Your task to perform on an android device: allow cookies in the chrome app Image 0: 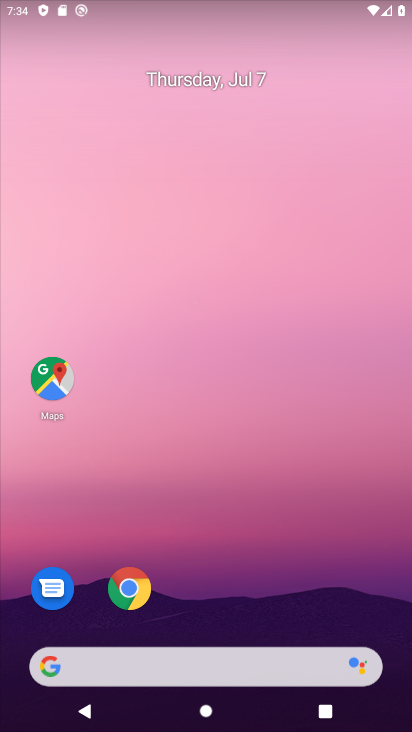
Step 0: click (135, 587)
Your task to perform on an android device: allow cookies in the chrome app Image 1: 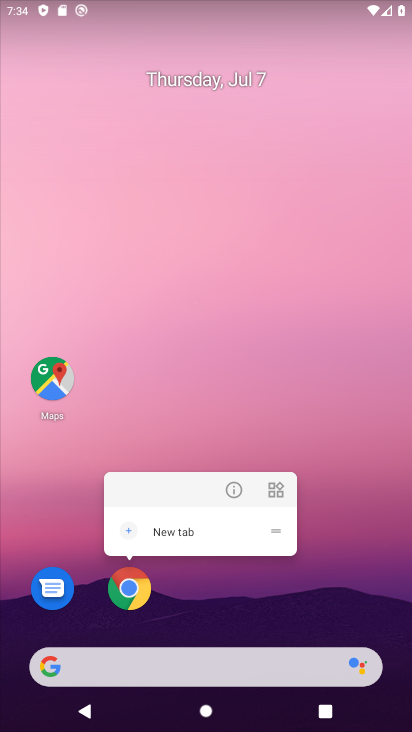
Step 1: click (117, 588)
Your task to perform on an android device: allow cookies in the chrome app Image 2: 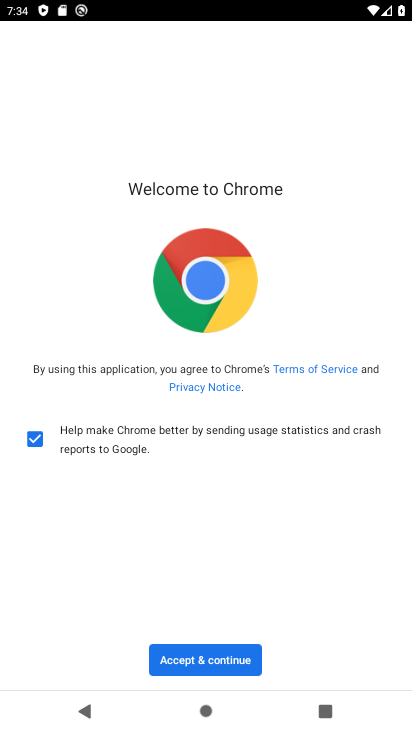
Step 2: click (183, 663)
Your task to perform on an android device: allow cookies in the chrome app Image 3: 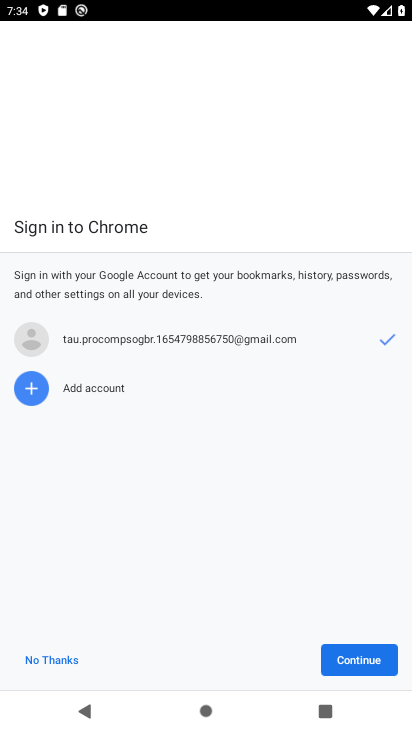
Step 3: click (346, 654)
Your task to perform on an android device: allow cookies in the chrome app Image 4: 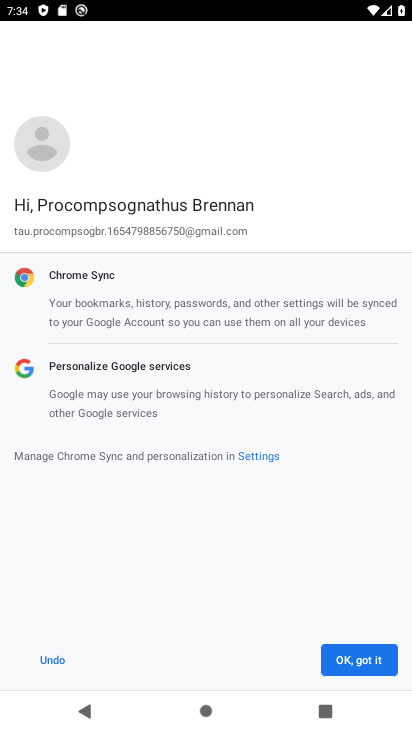
Step 4: click (345, 668)
Your task to perform on an android device: allow cookies in the chrome app Image 5: 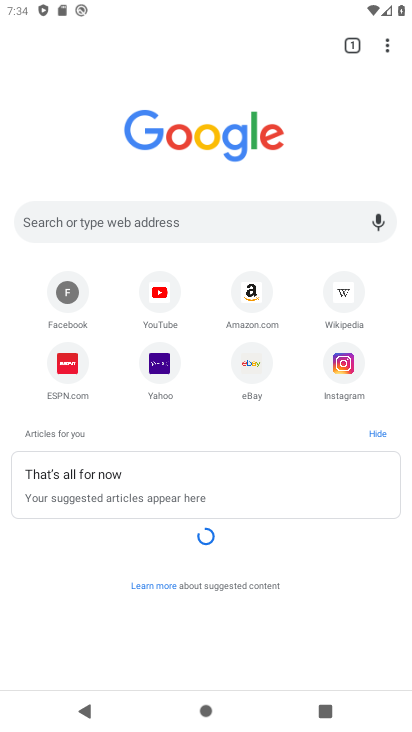
Step 5: click (387, 45)
Your task to perform on an android device: allow cookies in the chrome app Image 6: 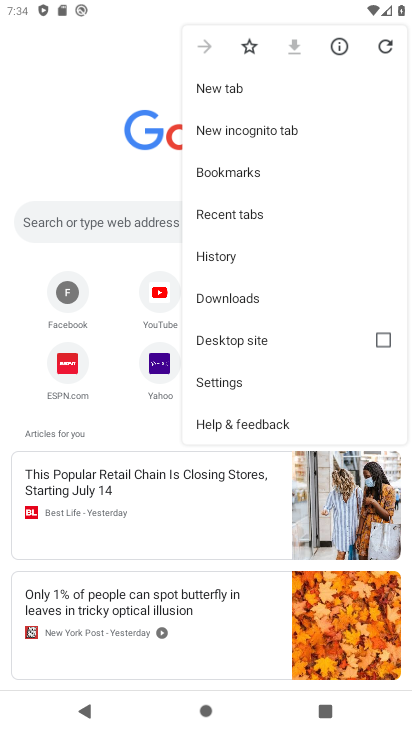
Step 6: click (215, 383)
Your task to perform on an android device: allow cookies in the chrome app Image 7: 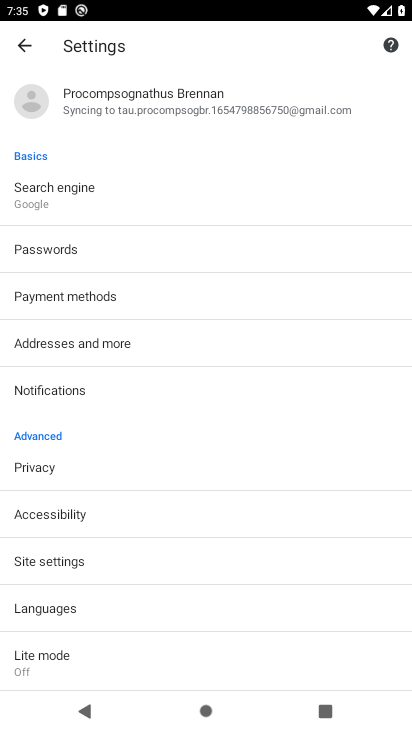
Step 7: drag from (142, 634) to (226, 230)
Your task to perform on an android device: allow cookies in the chrome app Image 8: 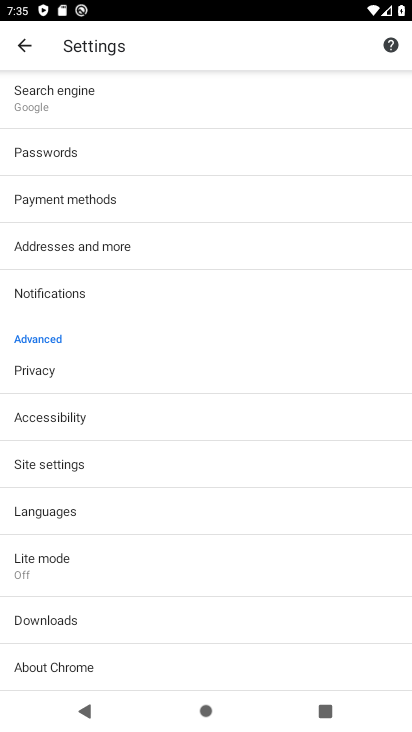
Step 8: drag from (175, 634) to (218, 392)
Your task to perform on an android device: allow cookies in the chrome app Image 9: 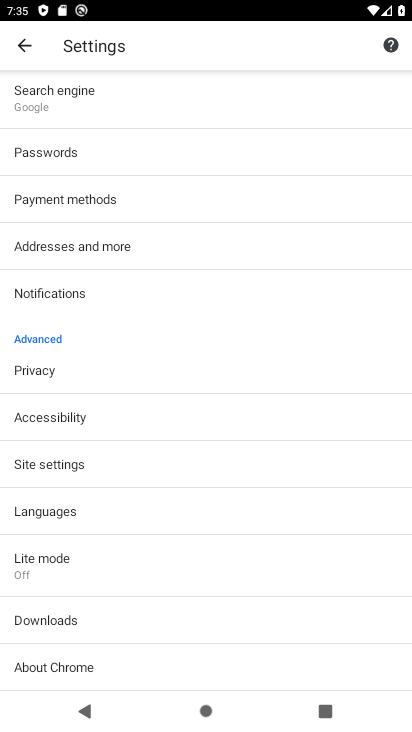
Step 9: click (59, 418)
Your task to perform on an android device: allow cookies in the chrome app Image 10: 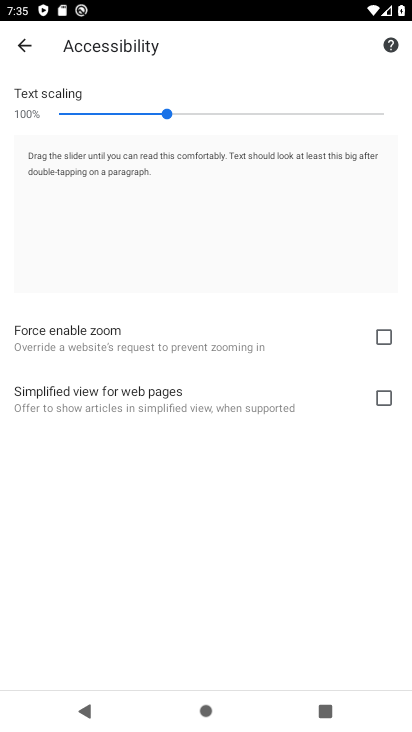
Step 10: click (16, 49)
Your task to perform on an android device: allow cookies in the chrome app Image 11: 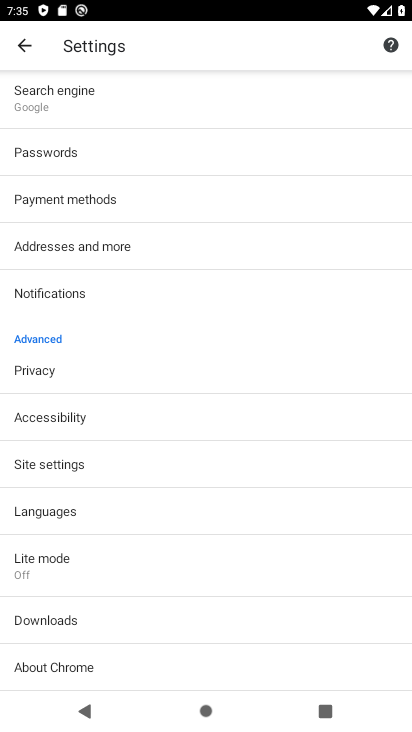
Step 11: click (73, 468)
Your task to perform on an android device: allow cookies in the chrome app Image 12: 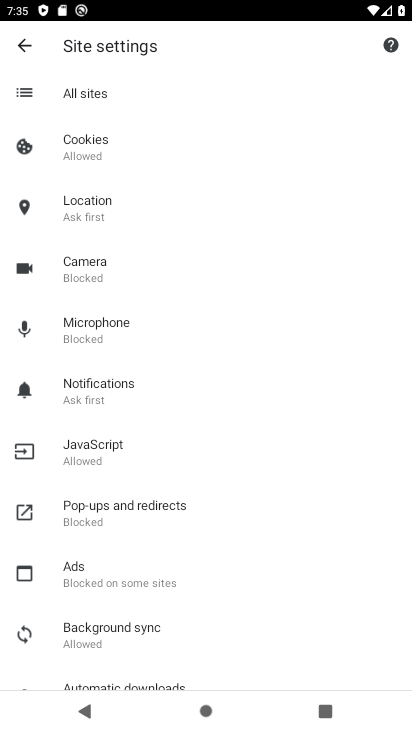
Step 12: click (89, 146)
Your task to perform on an android device: allow cookies in the chrome app Image 13: 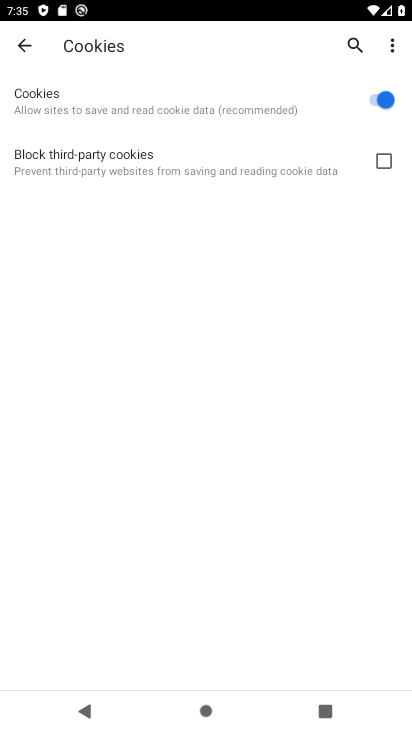
Step 13: task complete